Your task to perform on an android device: manage bookmarks in the chrome app Image 0: 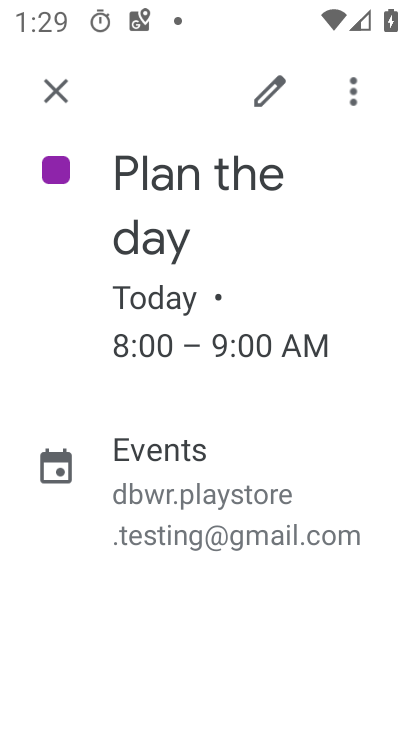
Step 0: press home button
Your task to perform on an android device: manage bookmarks in the chrome app Image 1: 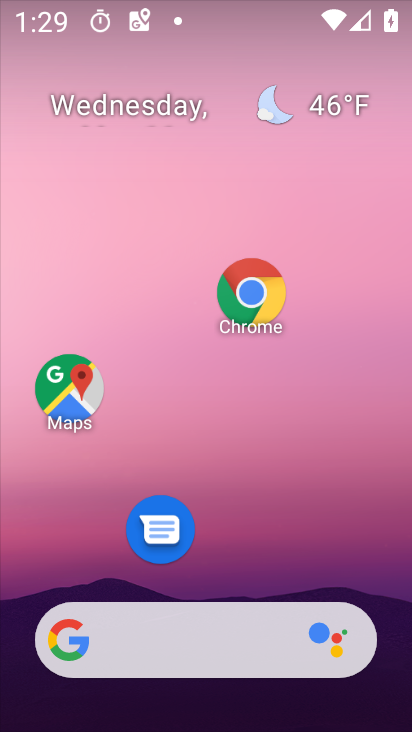
Step 1: click (262, 295)
Your task to perform on an android device: manage bookmarks in the chrome app Image 2: 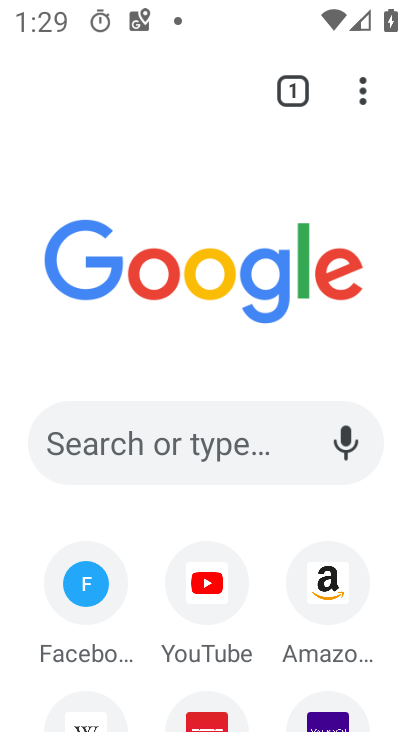
Step 2: click (377, 90)
Your task to perform on an android device: manage bookmarks in the chrome app Image 3: 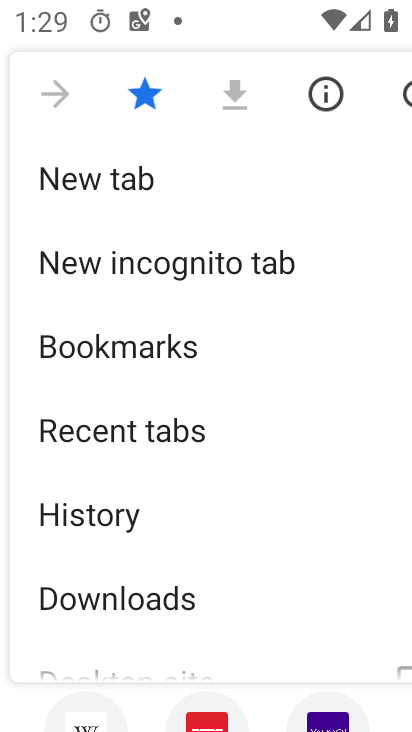
Step 3: click (165, 365)
Your task to perform on an android device: manage bookmarks in the chrome app Image 4: 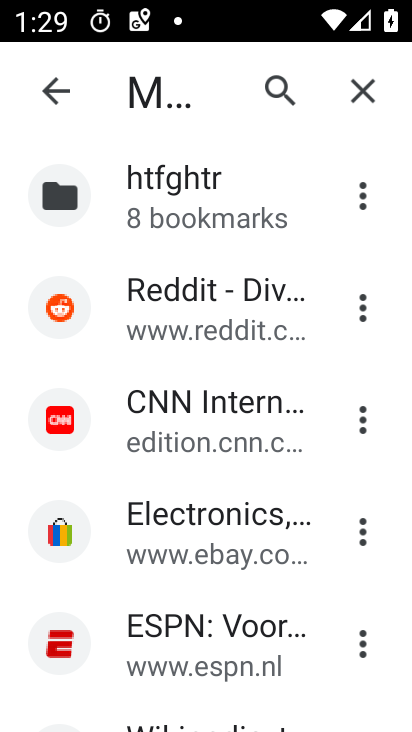
Step 4: click (373, 514)
Your task to perform on an android device: manage bookmarks in the chrome app Image 5: 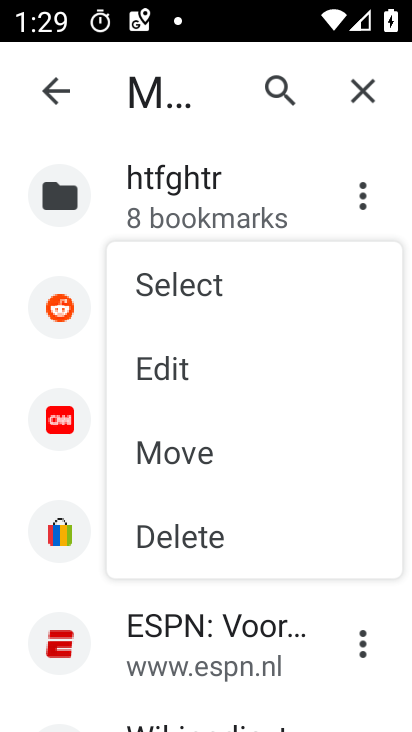
Step 5: click (144, 520)
Your task to perform on an android device: manage bookmarks in the chrome app Image 6: 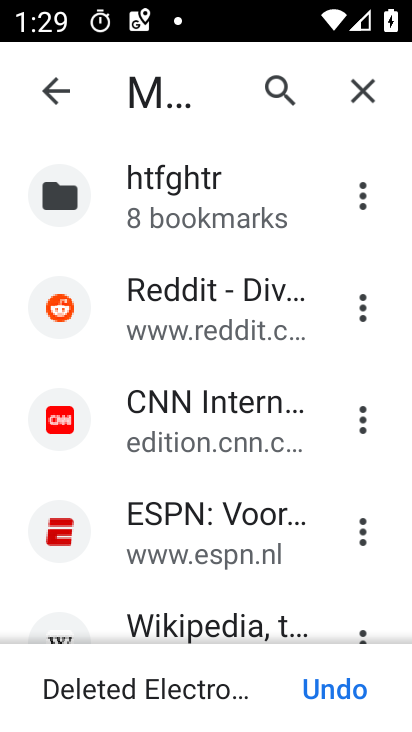
Step 6: task complete